Your task to perform on an android device: Open Wikipedia Image 0: 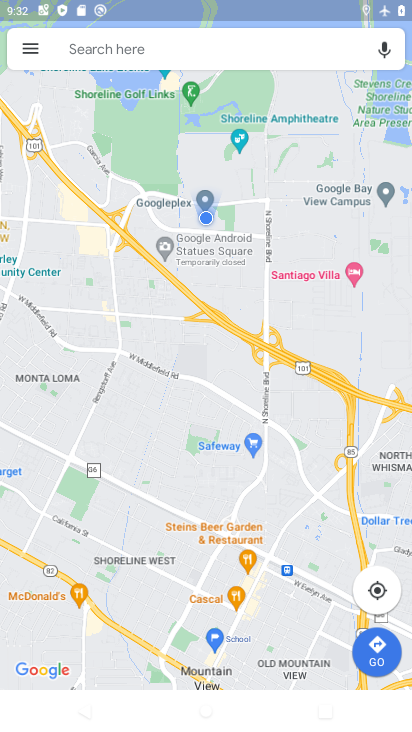
Step 0: press home button
Your task to perform on an android device: Open Wikipedia Image 1: 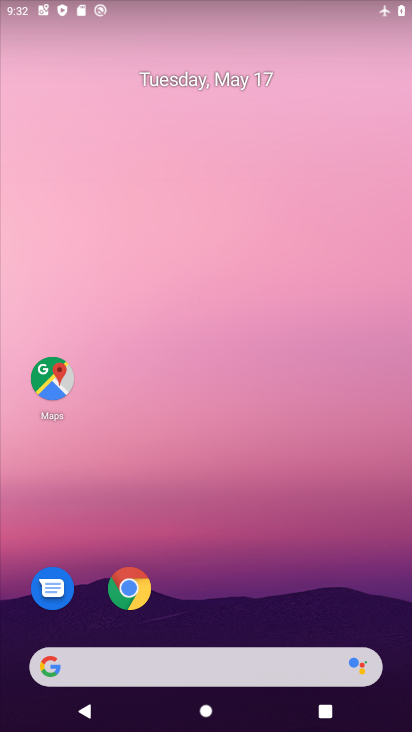
Step 1: click (124, 573)
Your task to perform on an android device: Open Wikipedia Image 2: 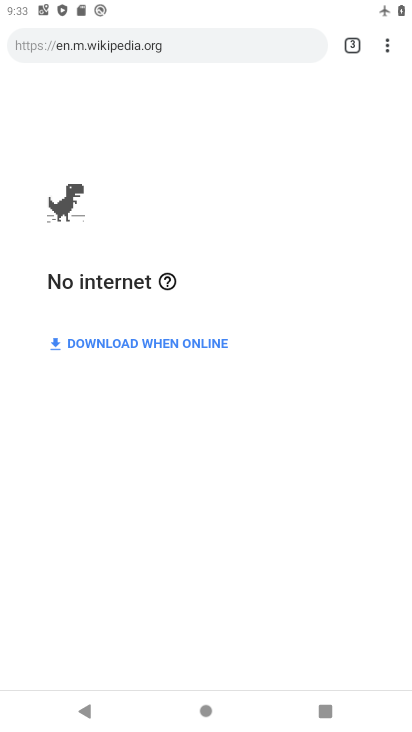
Step 2: task complete